Your task to perform on an android device: open app "Move to iOS" Image 0: 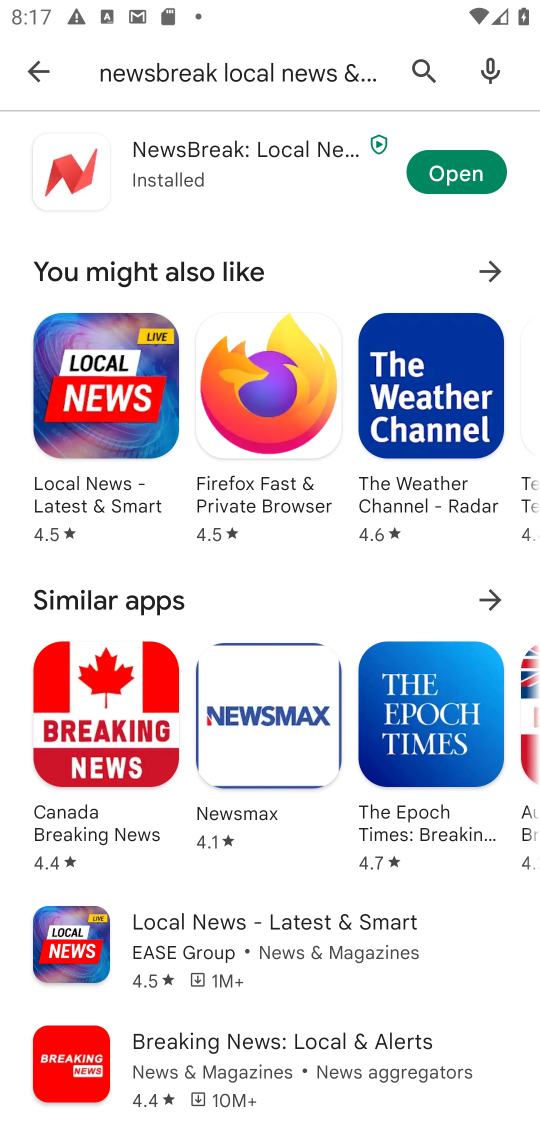
Step 0: click (428, 59)
Your task to perform on an android device: open app "Move to iOS" Image 1: 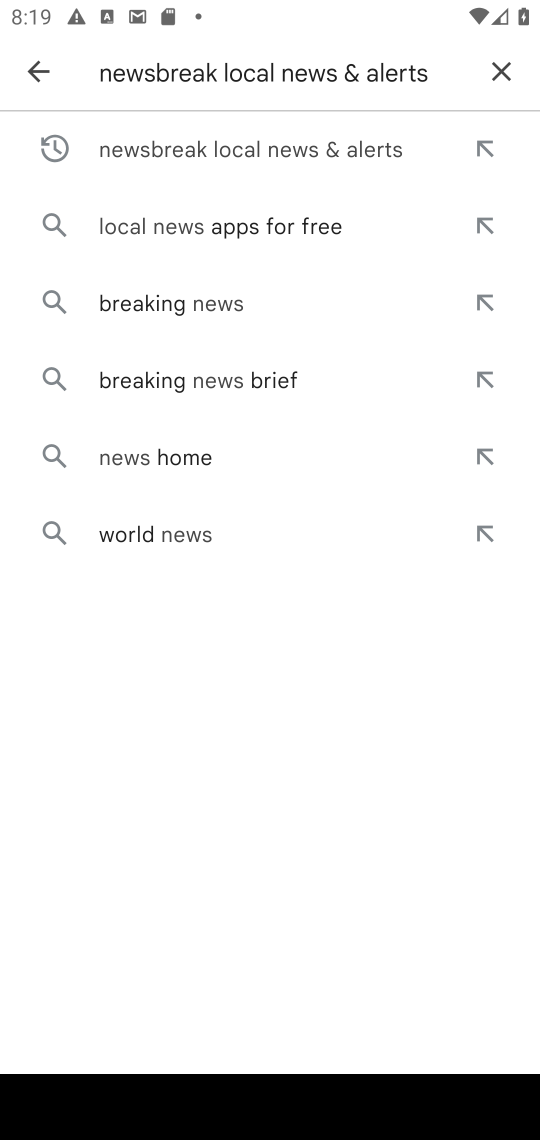
Step 1: click (507, 70)
Your task to perform on an android device: open app "Move to iOS" Image 2: 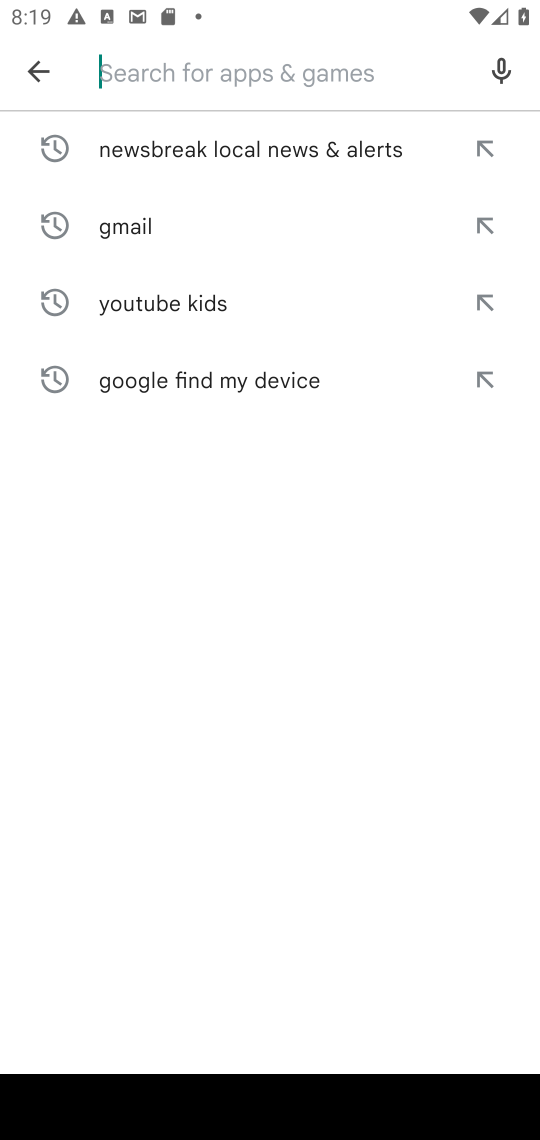
Step 2: type "Move to iOS"
Your task to perform on an android device: open app "Move to iOS" Image 3: 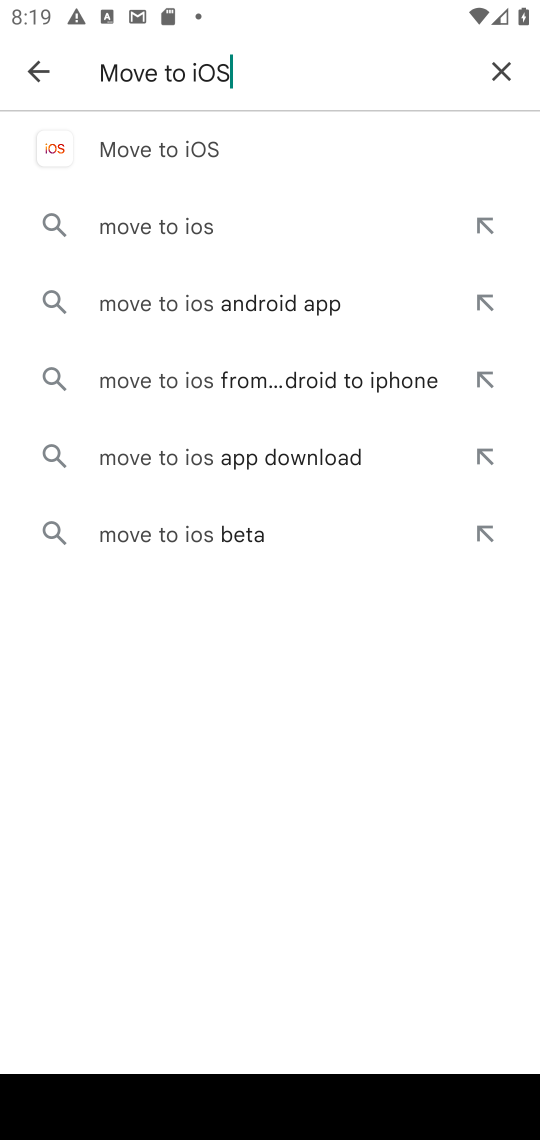
Step 3: click (188, 139)
Your task to perform on an android device: open app "Move to iOS" Image 4: 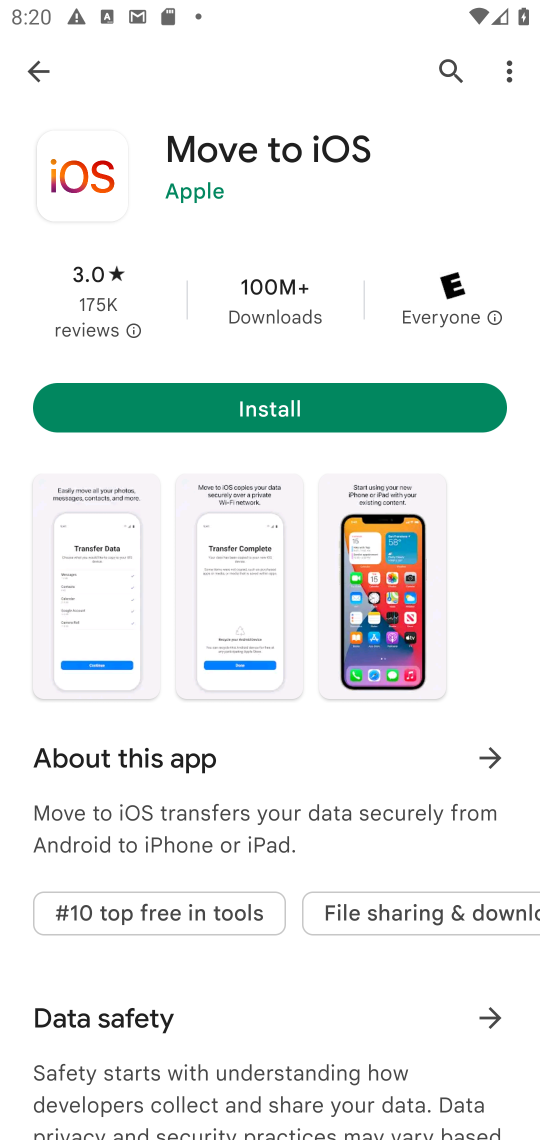
Step 4: click (250, 404)
Your task to perform on an android device: open app "Move to iOS" Image 5: 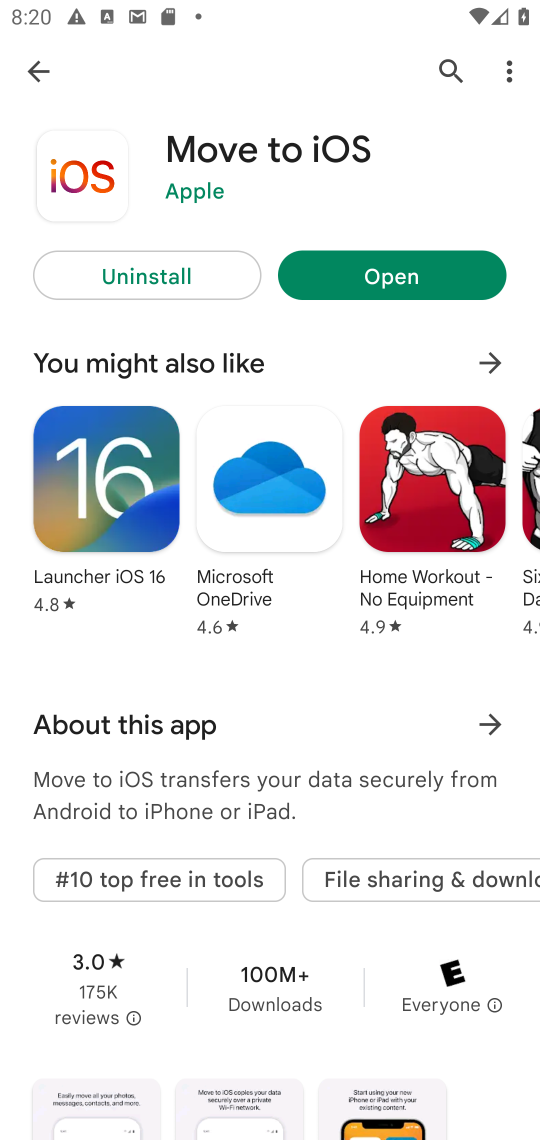
Step 5: click (206, 280)
Your task to perform on an android device: open app "Move to iOS" Image 6: 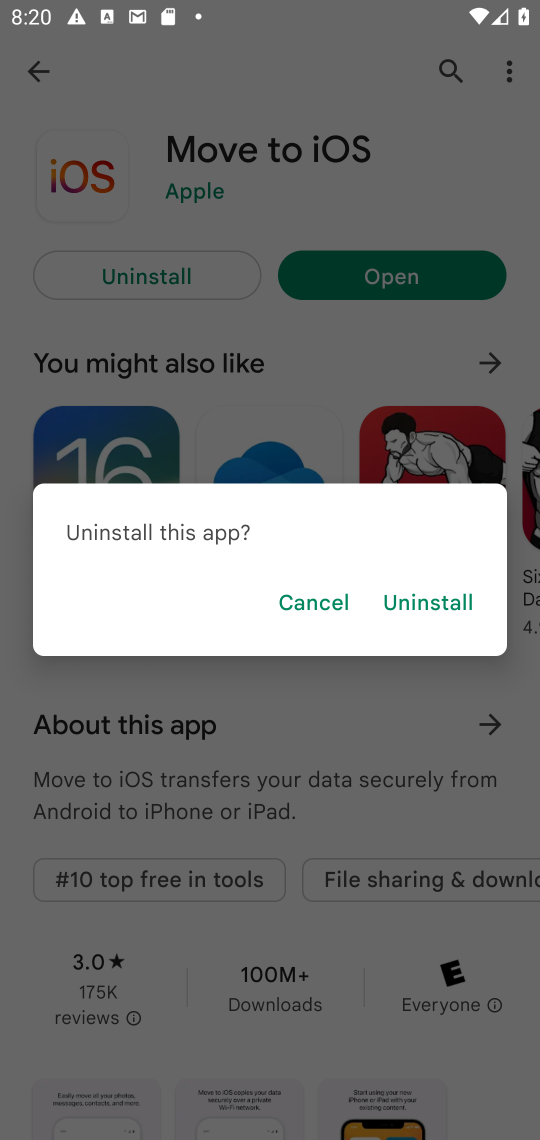
Step 6: click (331, 599)
Your task to perform on an android device: open app "Move to iOS" Image 7: 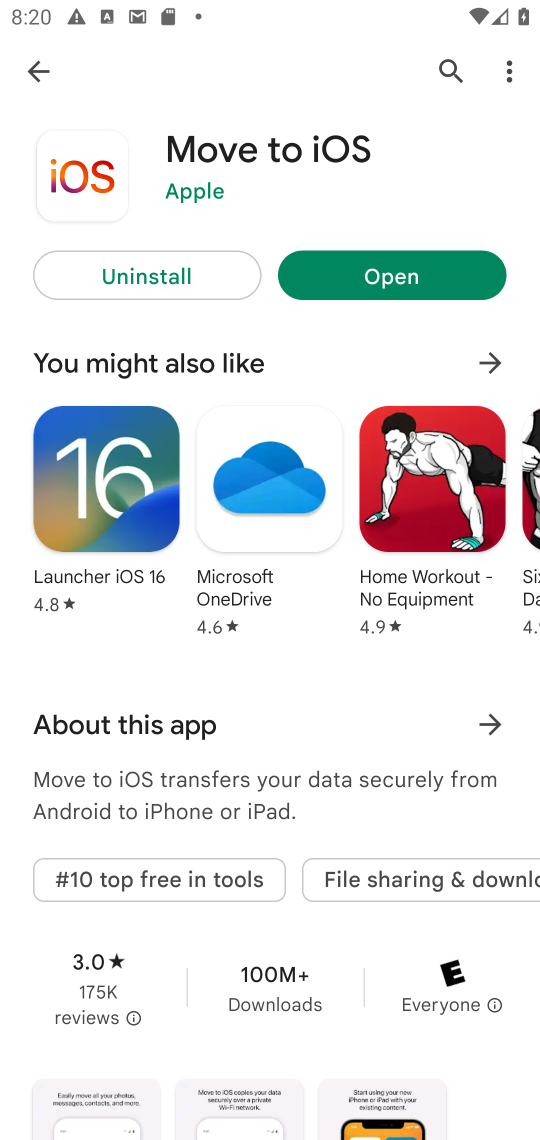
Step 7: click (171, 265)
Your task to perform on an android device: open app "Move to iOS" Image 8: 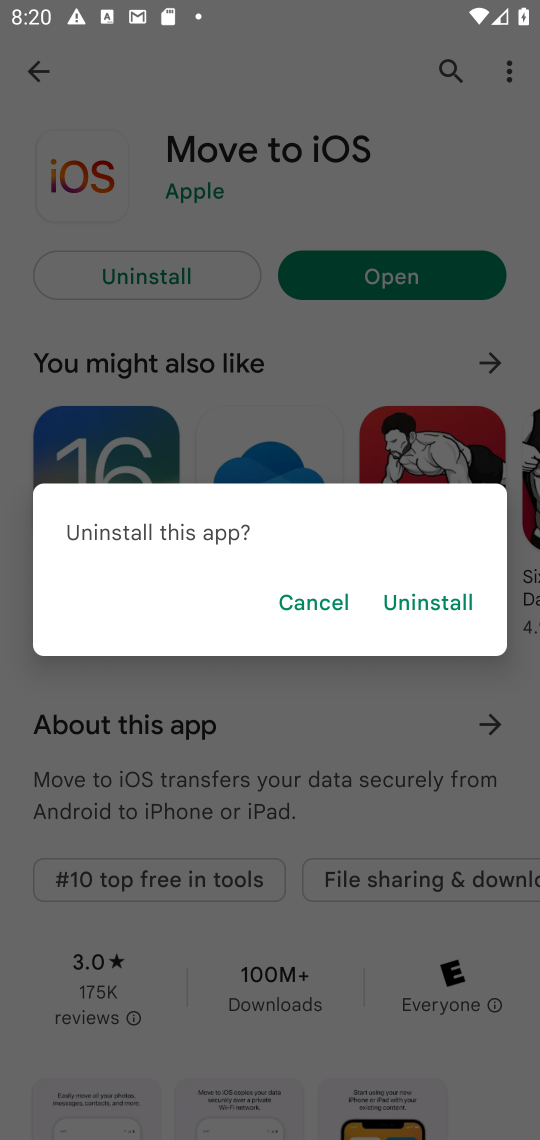
Step 8: click (447, 602)
Your task to perform on an android device: open app "Move to iOS" Image 9: 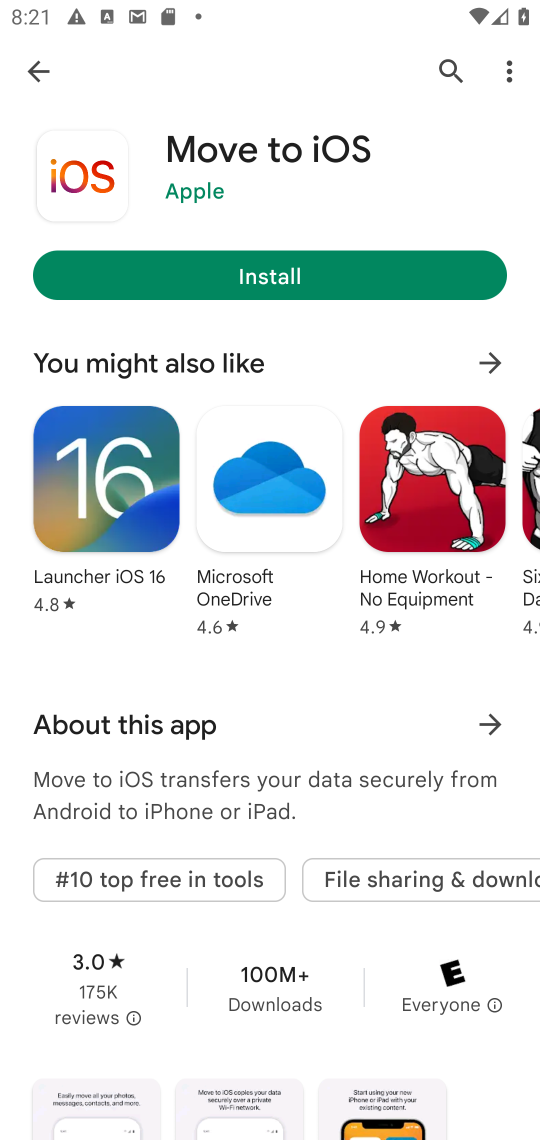
Step 9: task complete